Your task to perform on an android device: Go to notification settings Image 0: 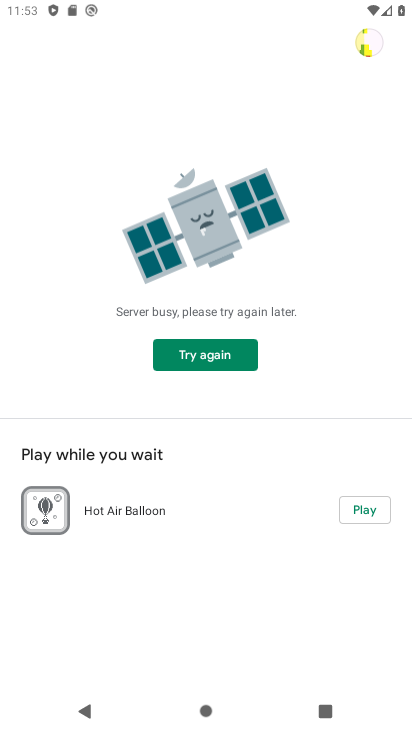
Step 0: press home button
Your task to perform on an android device: Go to notification settings Image 1: 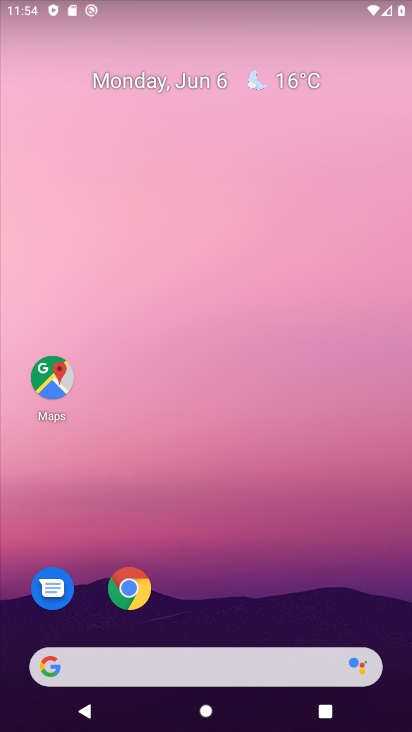
Step 1: drag from (249, 620) to (158, 159)
Your task to perform on an android device: Go to notification settings Image 2: 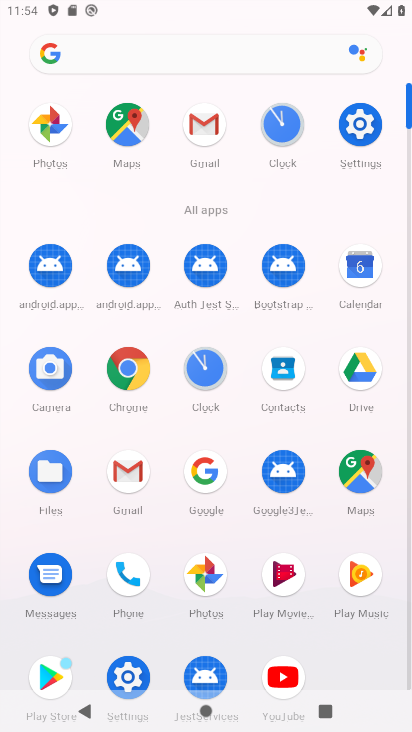
Step 2: click (355, 149)
Your task to perform on an android device: Go to notification settings Image 3: 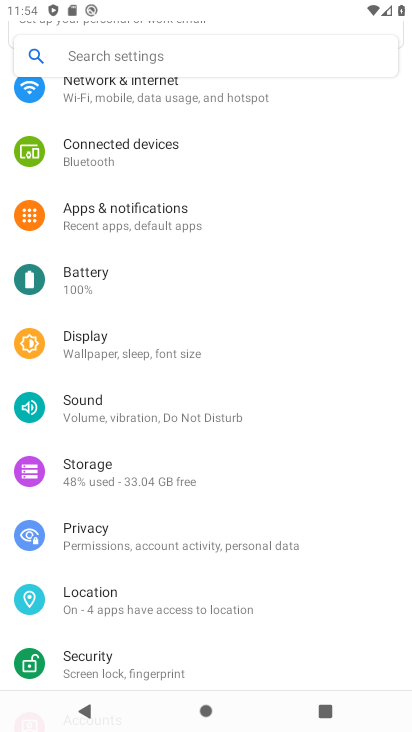
Step 3: click (258, 203)
Your task to perform on an android device: Go to notification settings Image 4: 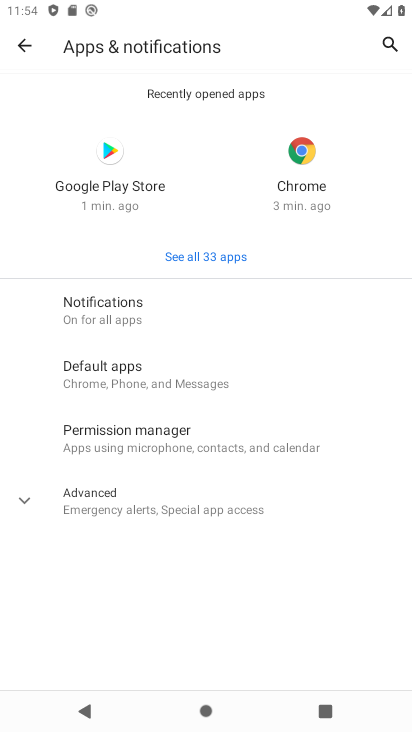
Step 4: task complete